Your task to perform on an android device: change the upload size in google photos Image 0: 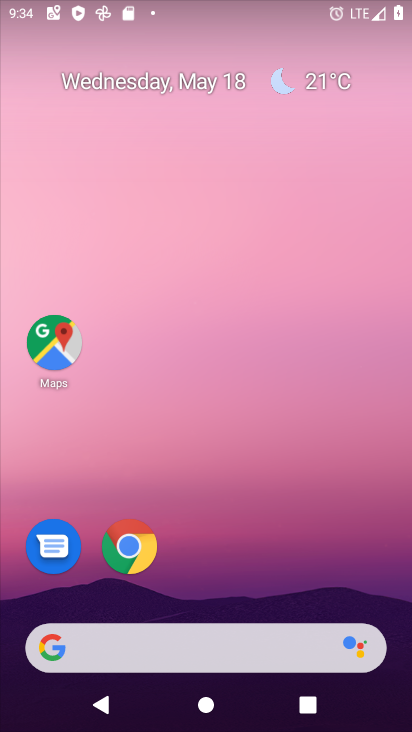
Step 0: drag from (357, 598) to (252, 53)
Your task to perform on an android device: change the upload size in google photos Image 1: 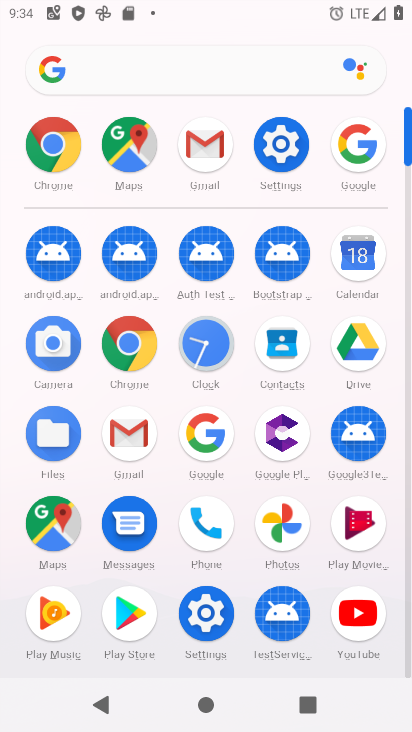
Step 1: click (279, 517)
Your task to perform on an android device: change the upload size in google photos Image 2: 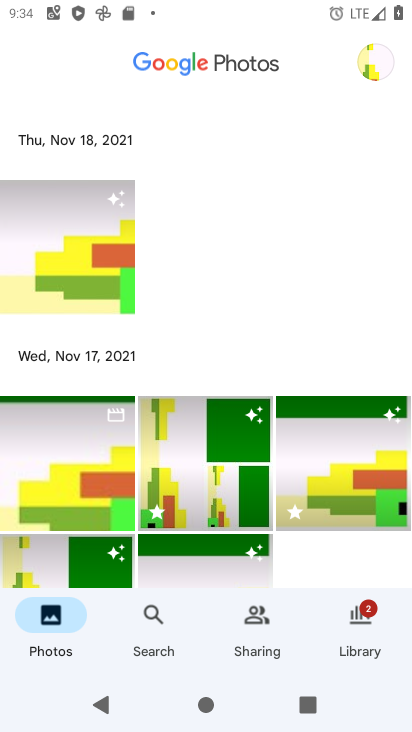
Step 2: click (383, 48)
Your task to perform on an android device: change the upload size in google photos Image 3: 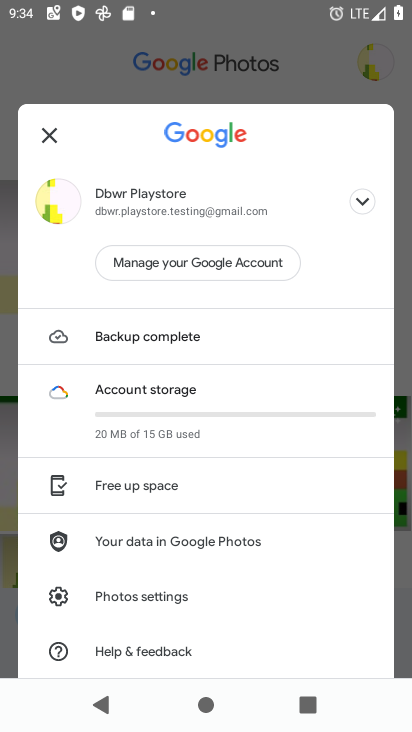
Step 3: click (174, 602)
Your task to perform on an android device: change the upload size in google photos Image 4: 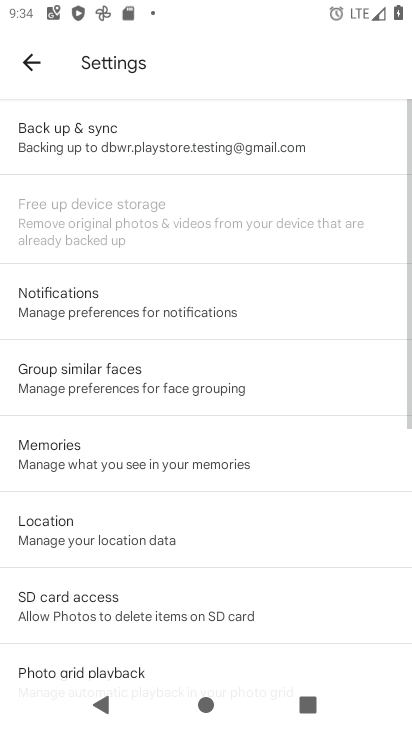
Step 4: click (128, 149)
Your task to perform on an android device: change the upload size in google photos Image 5: 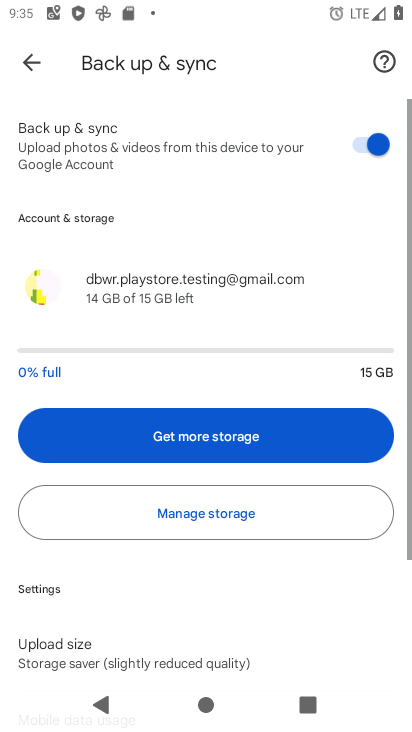
Step 5: drag from (160, 548) to (204, 151)
Your task to perform on an android device: change the upload size in google photos Image 6: 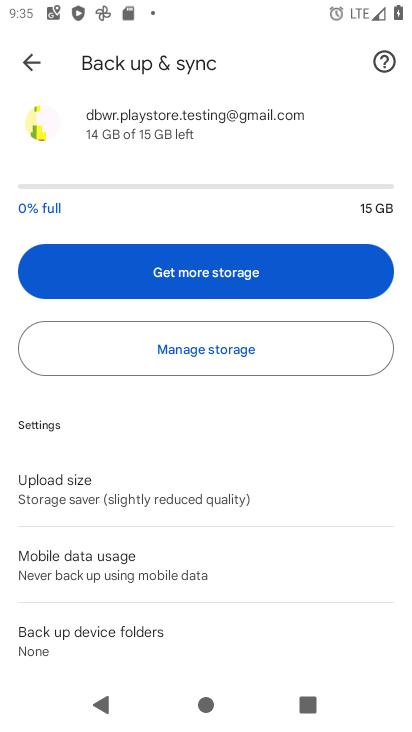
Step 6: click (143, 487)
Your task to perform on an android device: change the upload size in google photos Image 7: 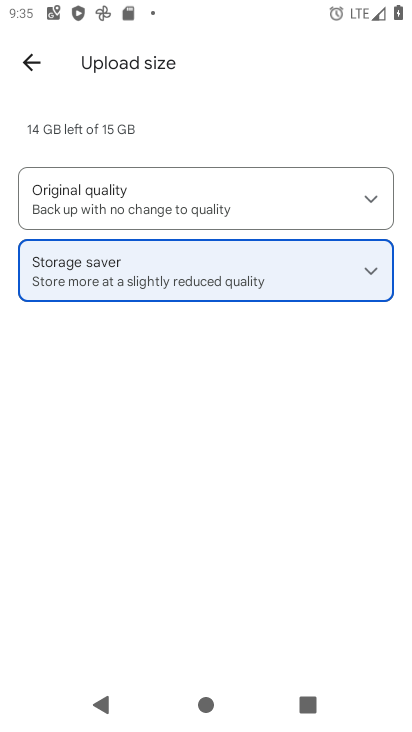
Step 7: click (224, 188)
Your task to perform on an android device: change the upload size in google photos Image 8: 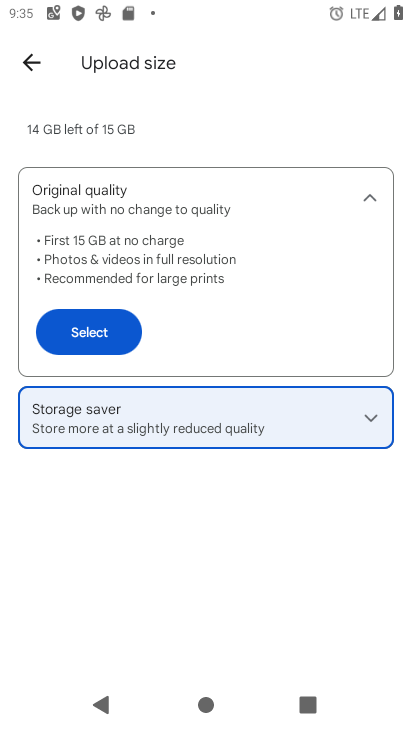
Step 8: click (73, 336)
Your task to perform on an android device: change the upload size in google photos Image 9: 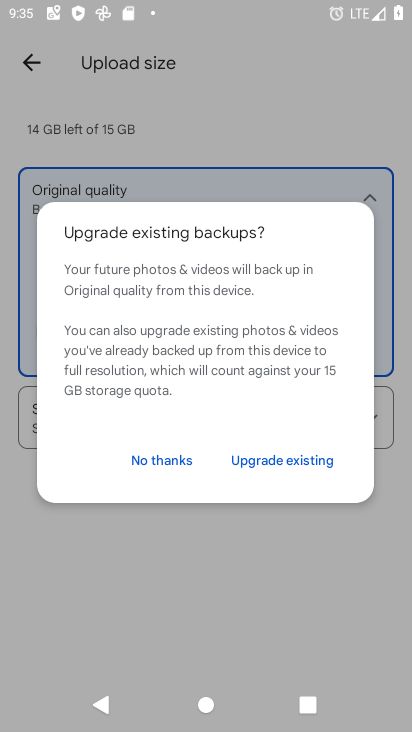
Step 9: click (185, 464)
Your task to perform on an android device: change the upload size in google photos Image 10: 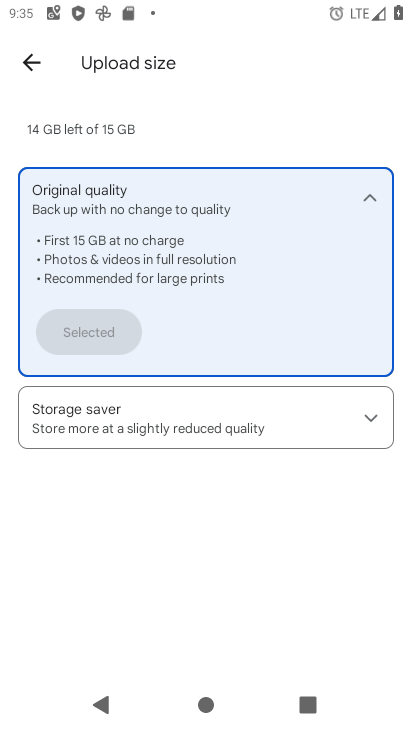
Step 10: task complete